Your task to perform on an android device: turn off picture-in-picture Image 0: 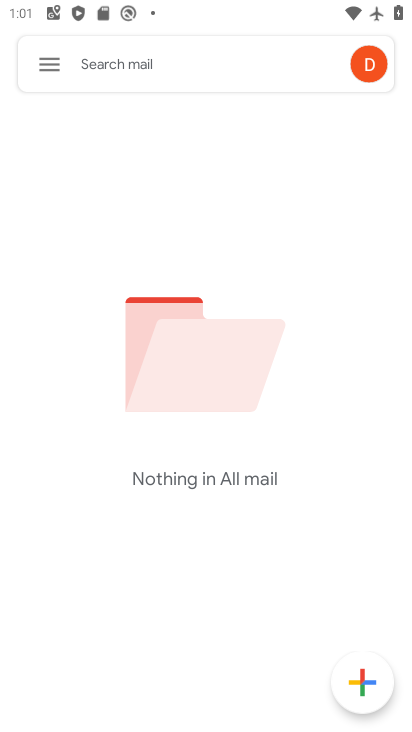
Step 0: press home button
Your task to perform on an android device: turn off picture-in-picture Image 1: 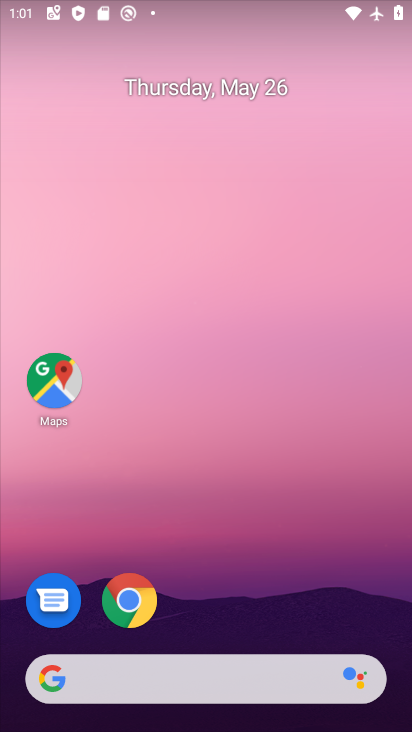
Step 1: click (140, 603)
Your task to perform on an android device: turn off picture-in-picture Image 2: 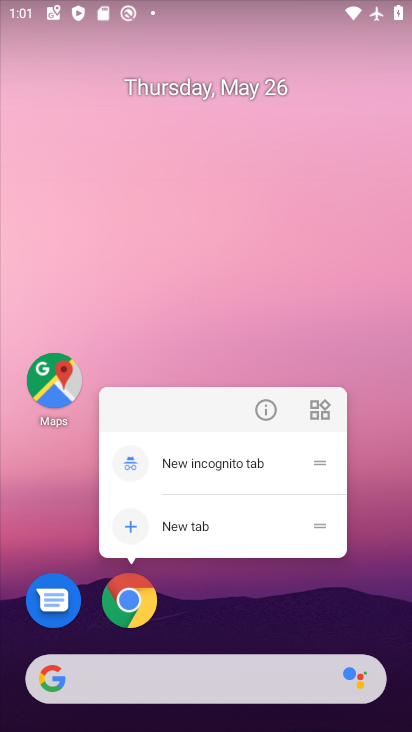
Step 2: click (257, 402)
Your task to perform on an android device: turn off picture-in-picture Image 3: 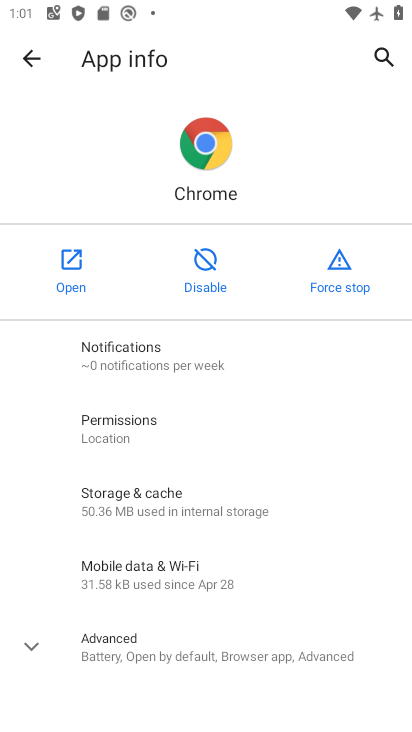
Step 3: click (149, 636)
Your task to perform on an android device: turn off picture-in-picture Image 4: 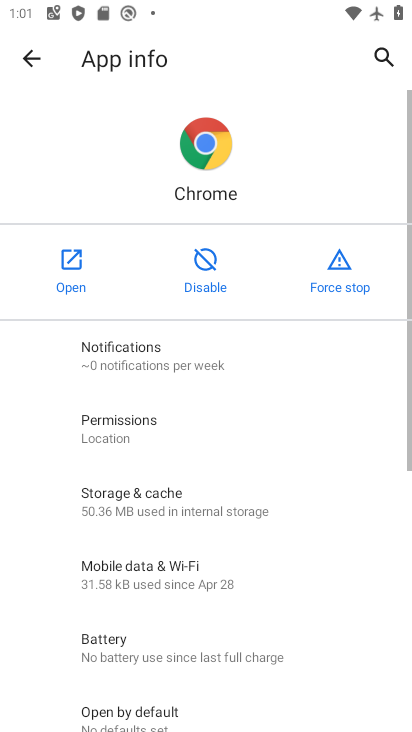
Step 4: drag from (328, 603) to (297, 158)
Your task to perform on an android device: turn off picture-in-picture Image 5: 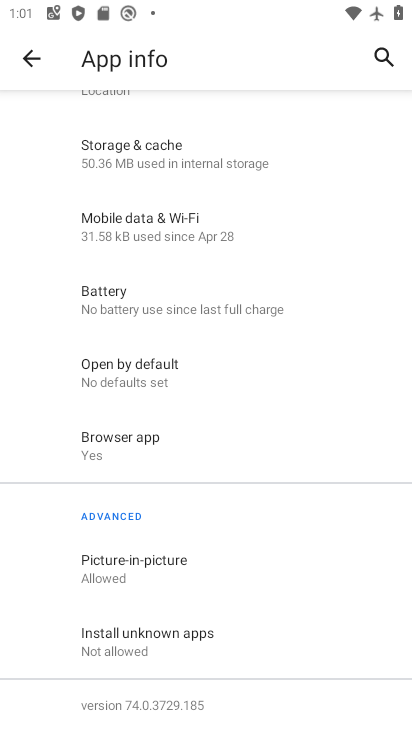
Step 5: click (157, 584)
Your task to perform on an android device: turn off picture-in-picture Image 6: 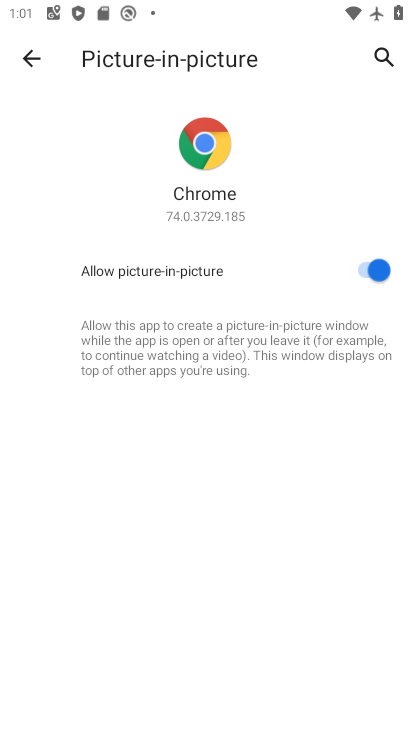
Step 6: click (369, 264)
Your task to perform on an android device: turn off picture-in-picture Image 7: 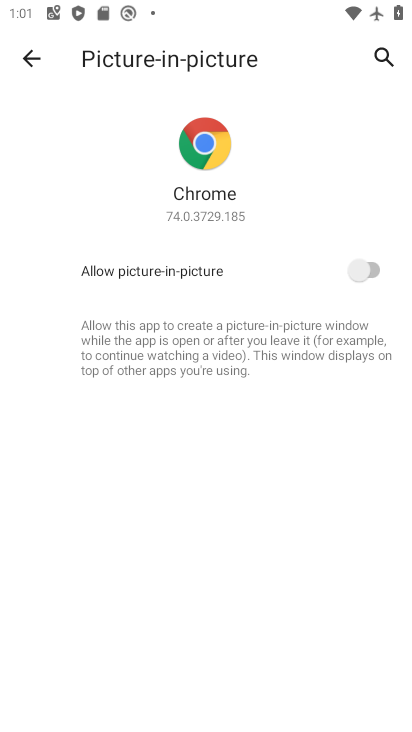
Step 7: task complete